Your task to perform on an android device: What is the news today? Image 0: 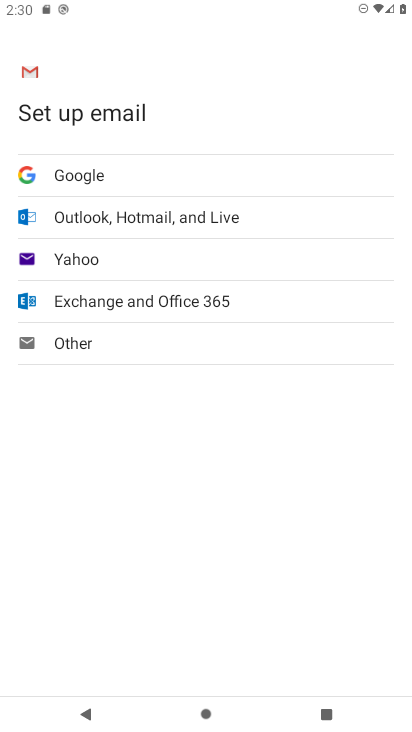
Step 0: press home button
Your task to perform on an android device: What is the news today? Image 1: 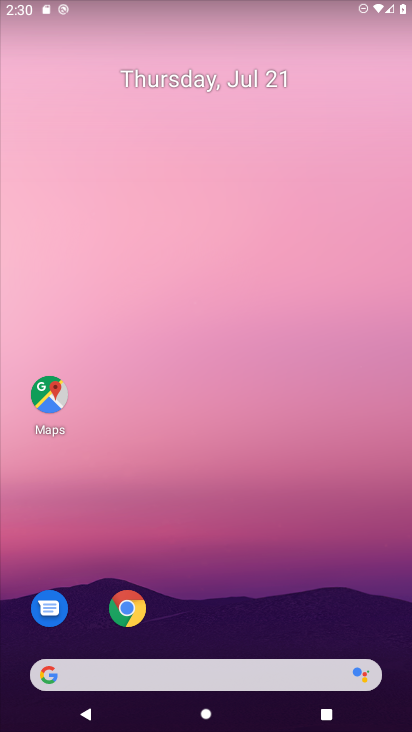
Step 1: drag from (236, 603) to (236, 272)
Your task to perform on an android device: What is the news today? Image 2: 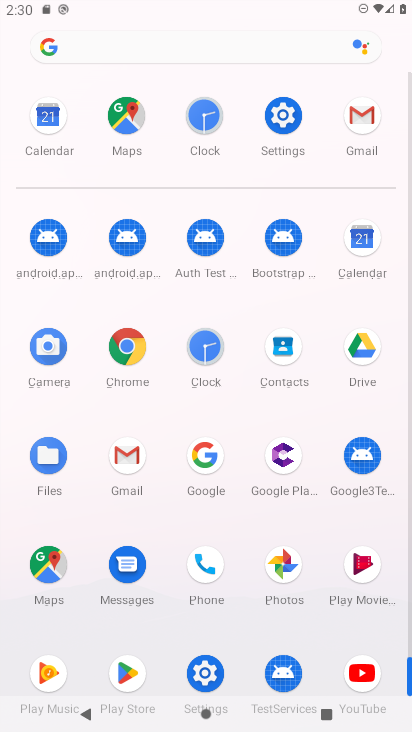
Step 2: click (199, 449)
Your task to perform on an android device: What is the news today? Image 3: 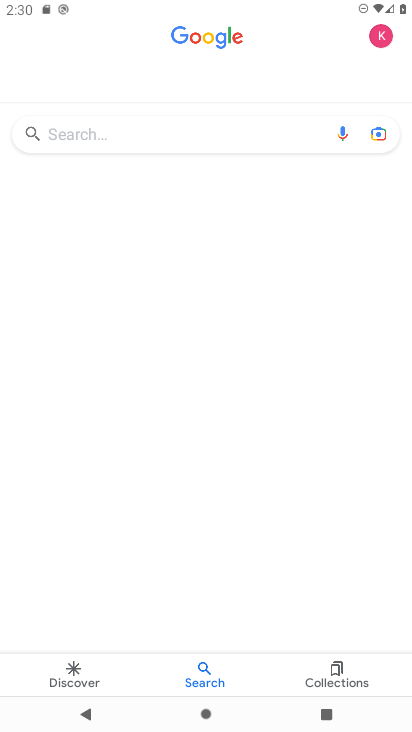
Step 3: click (113, 132)
Your task to perform on an android device: What is the news today? Image 4: 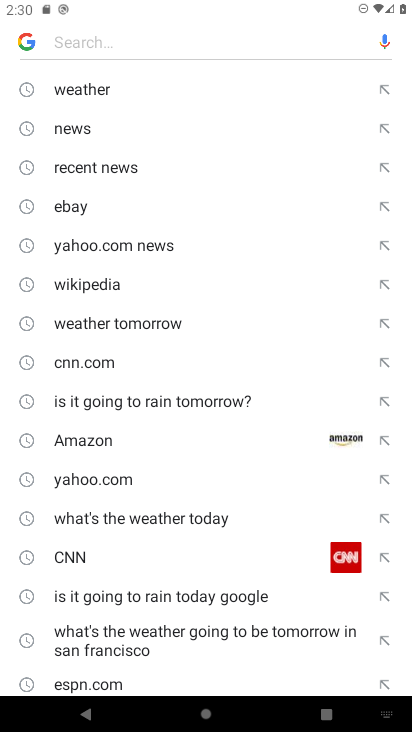
Step 4: click (112, 129)
Your task to perform on an android device: What is the news today? Image 5: 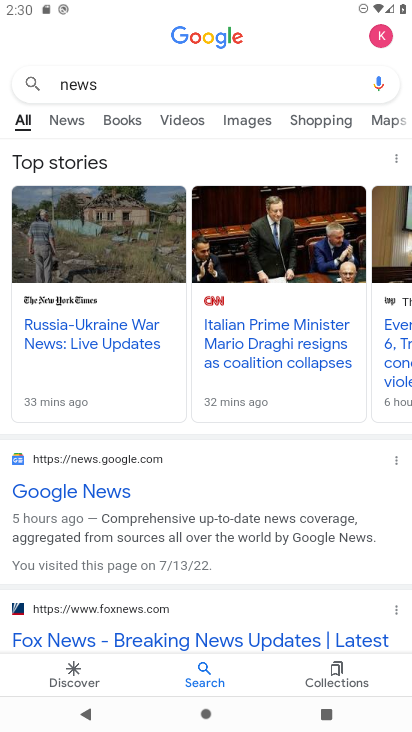
Step 5: click (77, 118)
Your task to perform on an android device: What is the news today? Image 6: 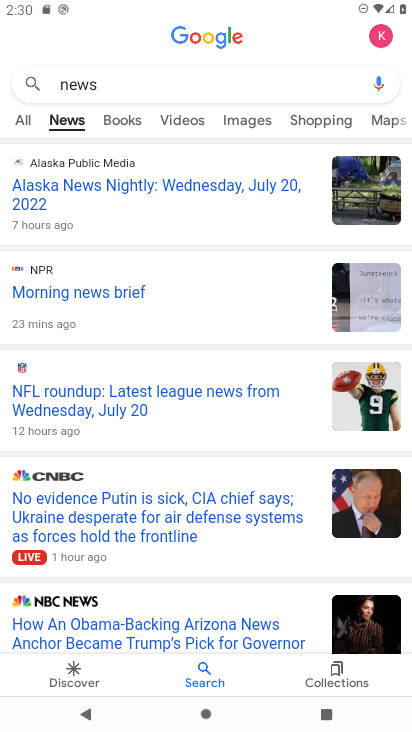
Step 6: task complete